Your task to perform on an android device: turn off picture-in-picture Image 0: 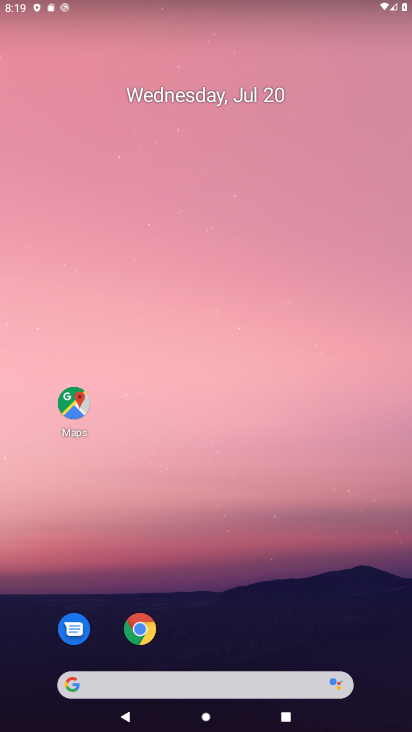
Step 0: click (143, 628)
Your task to perform on an android device: turn off picture-in-picture Image 1: 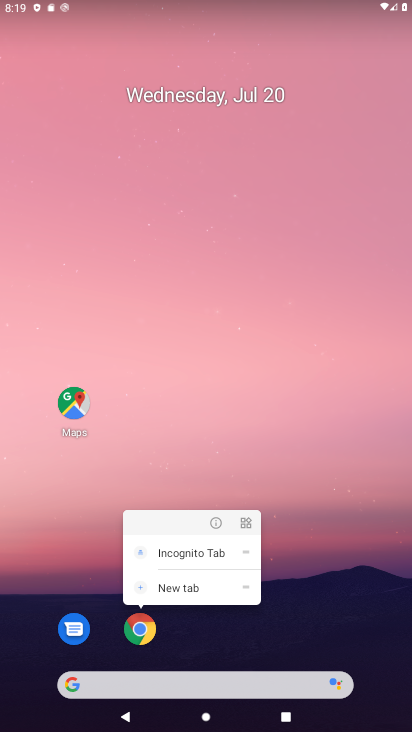
Step 1: click (214, 523)
Your task to perform on an android device: turn off picture-in-picture Image 2: 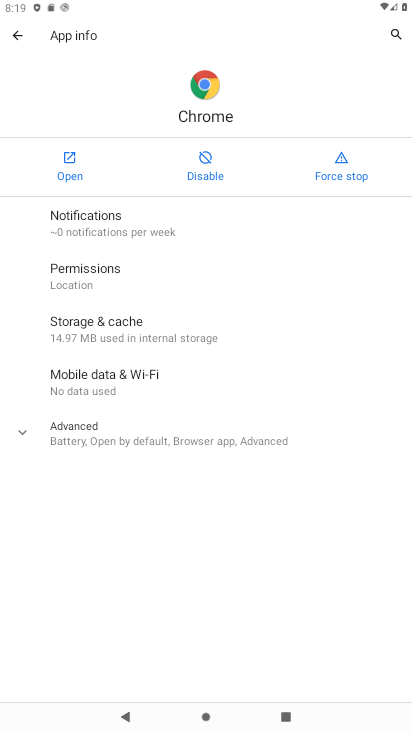
Step 2: click (90, 431)
Your task to perform on an android device: turn off picture-in-picture Image 3: 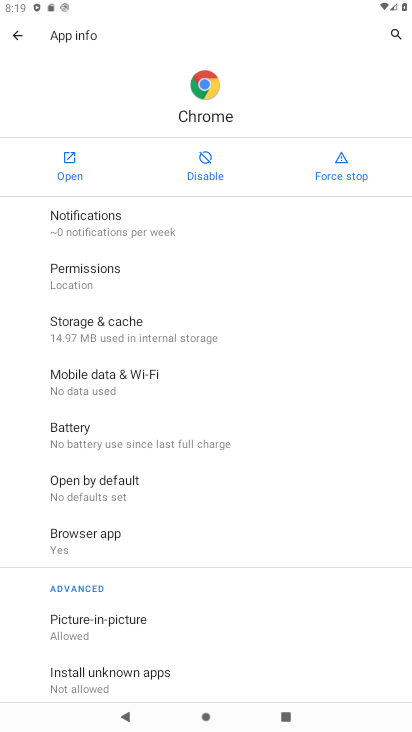
Step 3: click (93, 625)
Your task to perform on an android device: turn off picture-in-picture Image 4: 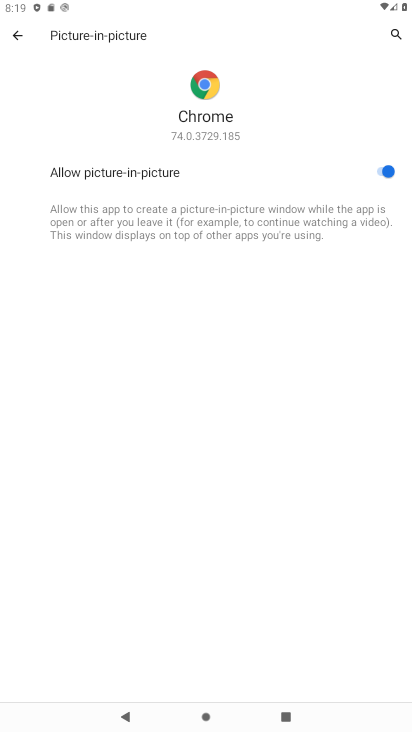
Step 4: click (370, 164)
Your task to perform on an android device: turn off picture-in-picture Image 5: 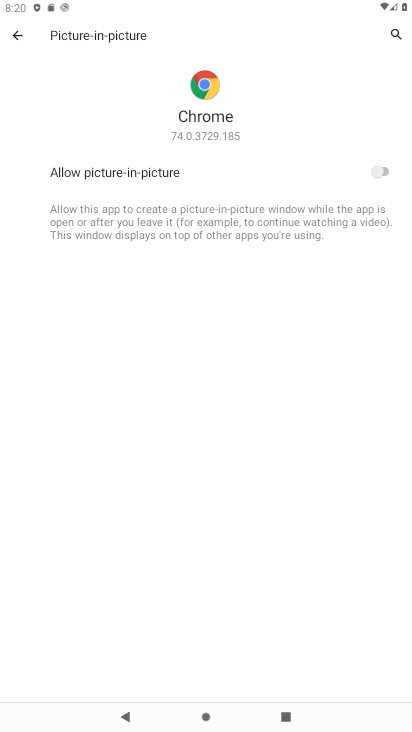
Step 5: task complete